Your task to perform on an android device: What's on my calendar today? Image 0: 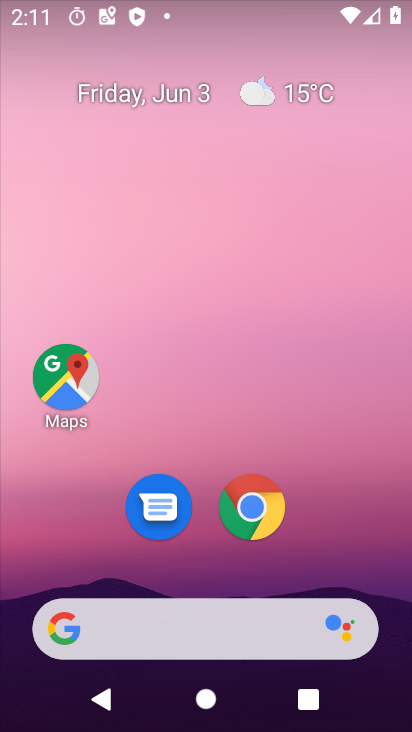
Step 0: drag from (389, 656) to (251, 18)
Your task to perform on an android device: What's on my calendar today? Image 1: 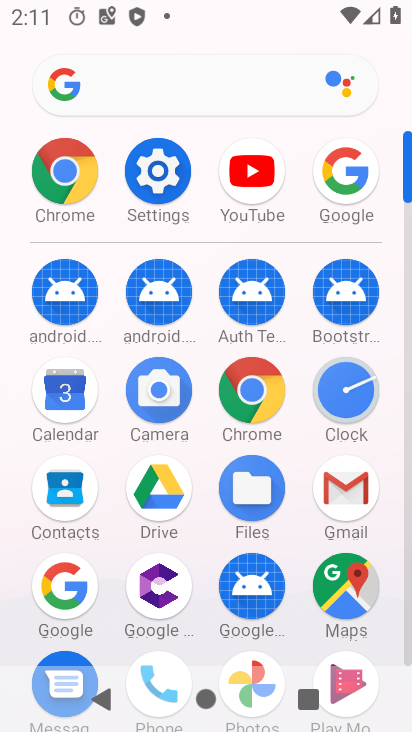
Step 1: click (66, 411)
Your task to perform on an android device: What's on my calendar today? Image 2: 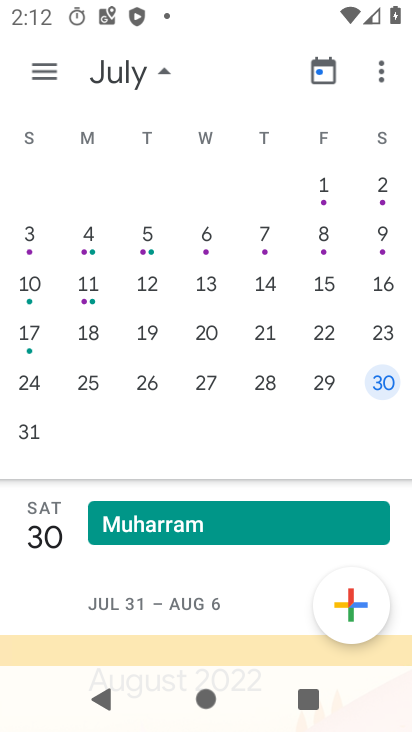
Step 2: drag from (78, 323) to (290, 343)
Your task to perform on an android device: What's on my calendar today? Image 3: 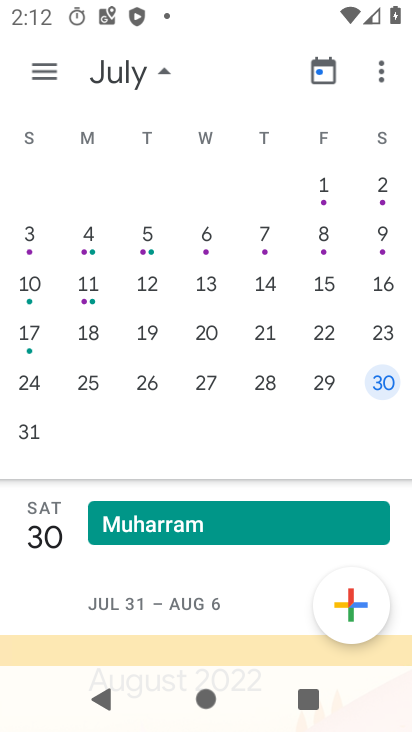
Step 3: click (317, 309)
Your task to perform on an android device: What's on my calendar today? Image 4: 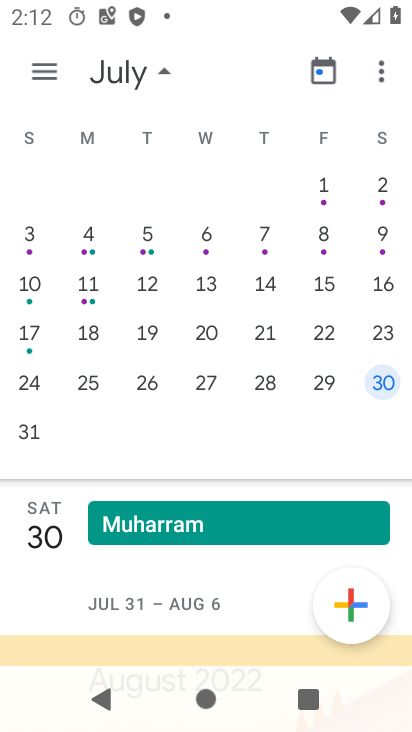
Step 4: drag from (53, 264) to (412, 292)
Your task to perform on an android device: What's on my calendar today? Image 5: 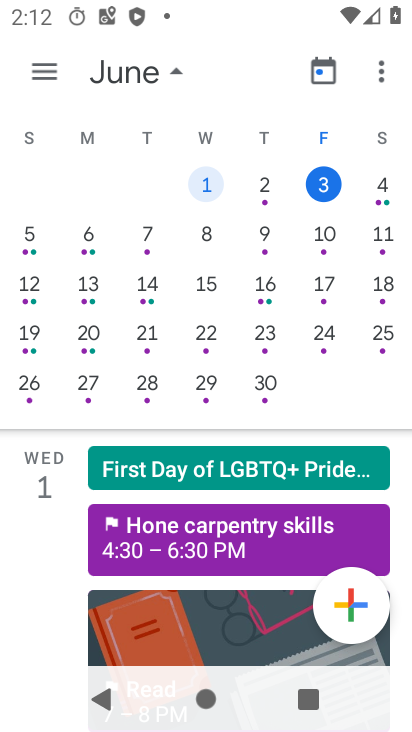
Step 5: click (320, 175)
Your task to perform on an android device: What's on my calendar today? Image 6: 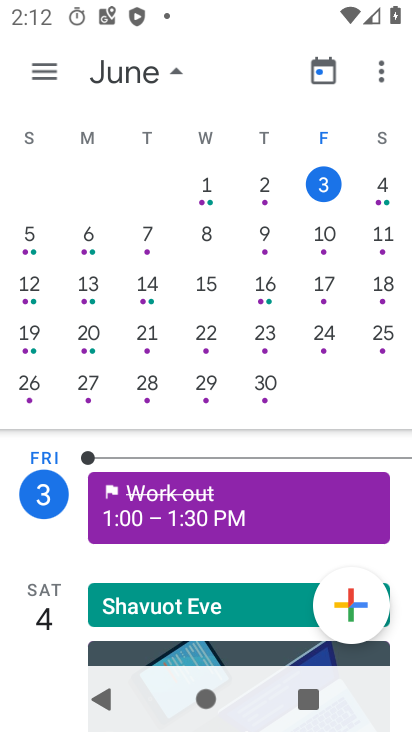
Step 6: click (285, 521)
Your task to perform on an android device: What's on my calendar today? Image 7: 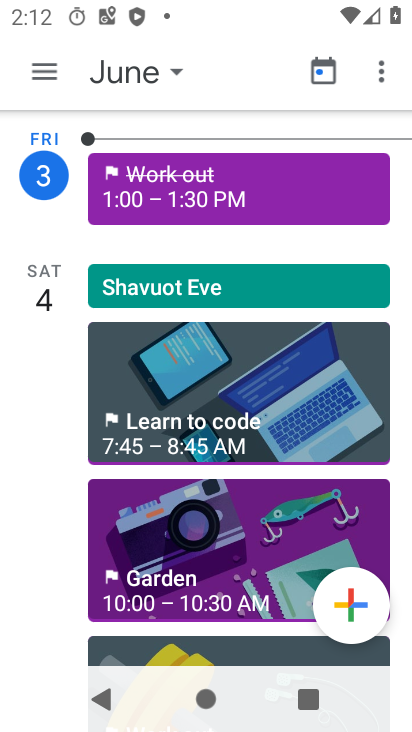
Step 7: click (281, 204)
Your task to perform on an android device: What's on my calendar today? Image 8: 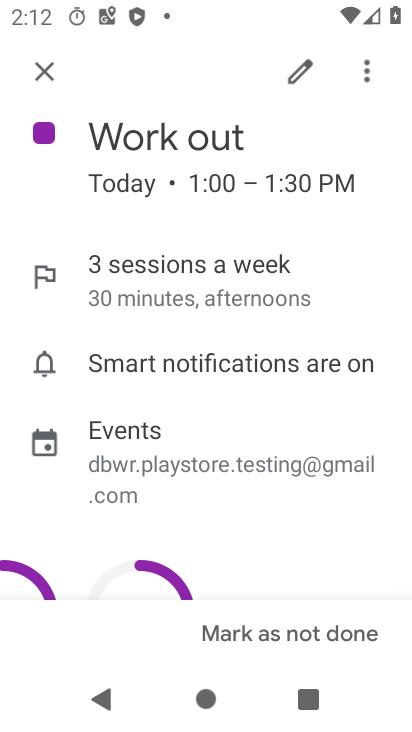
Step 8: task complete